Your task to perform on an android device: allow cookies in the chrome app Image 0: 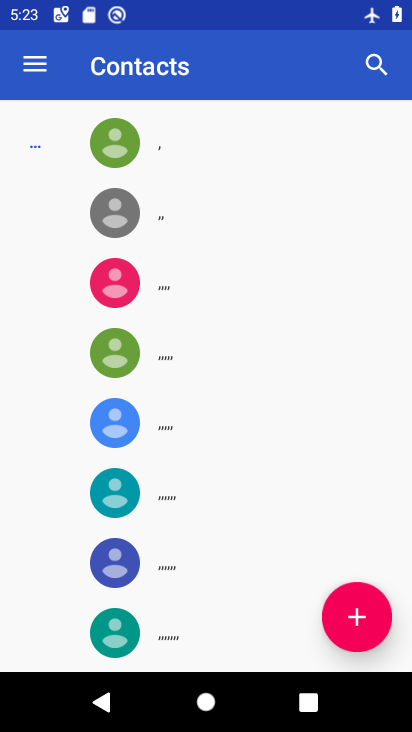
Step 0: press home button
Your task to perform on an android device: allow cookies in the chrome app Image 1: 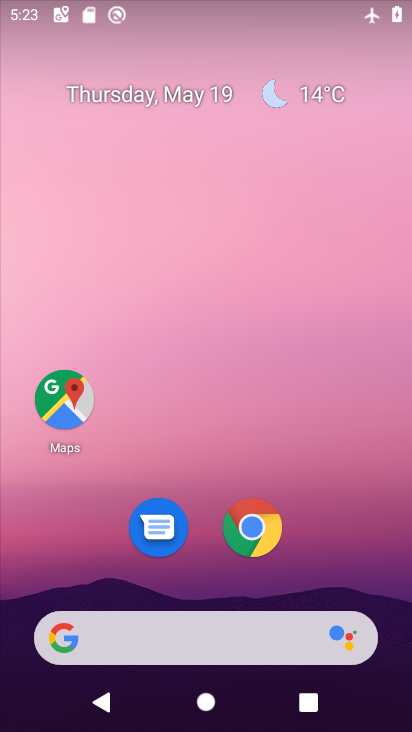
Step 1: click (247, 521)
Your task to perform on an android device: allow cookies in the chrome app Image 2: 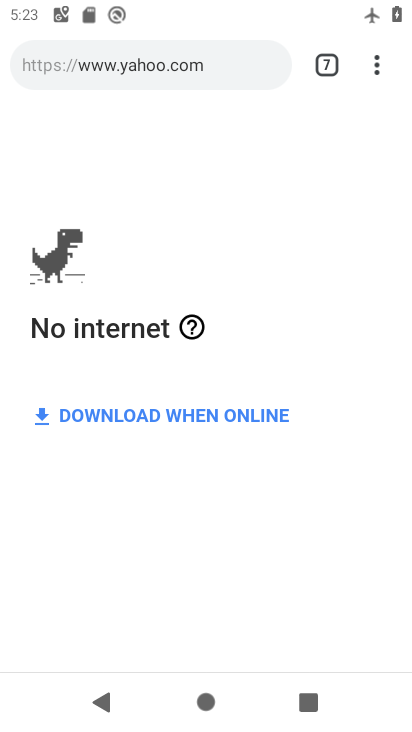
Step 2: click (379, 70)
Your task to perform on an android device: allow cookies in the chrome app Image 3: 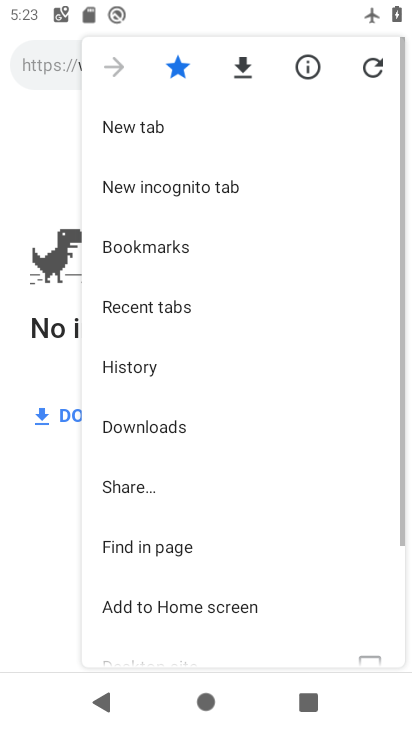
Step 3: drag from (250, 244) to (250, 90)
Your task to perform on an android device: allow cookies in the chrome app Image 4: 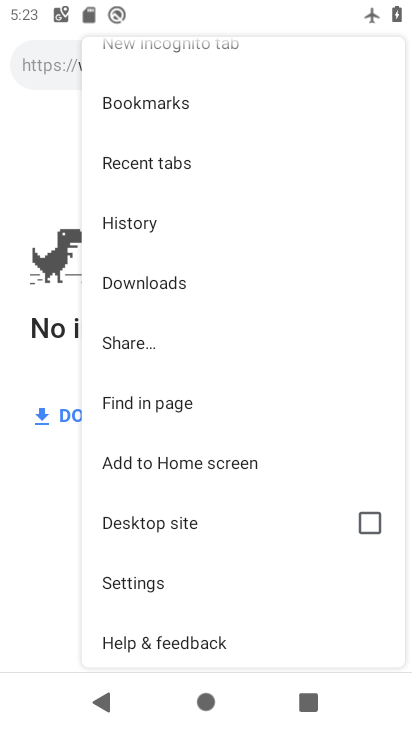
Step 4: drag from (255, 520) to (260, 353)
Your task to perform on an android device: allow cookies in the chrome app Image 5: 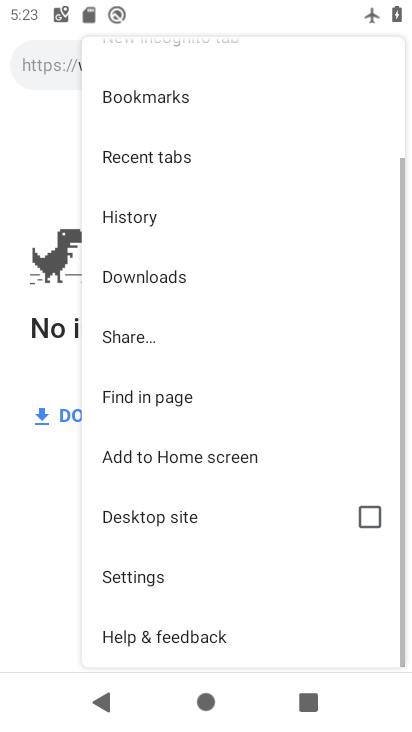
Step 5: click (166, 580)
Your task to perform on an android device: allow cookies in the chrome app Image 6: 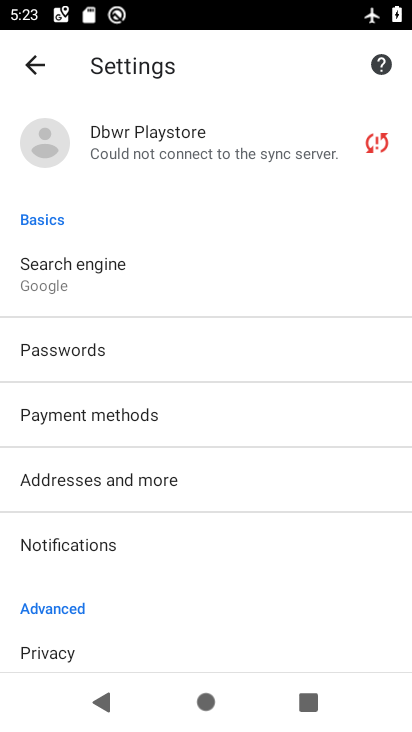
Step 6: drag from (187, 499) to (200, 115)
Your task to perform on an android device: allow cookies in the chrome app Image 7: 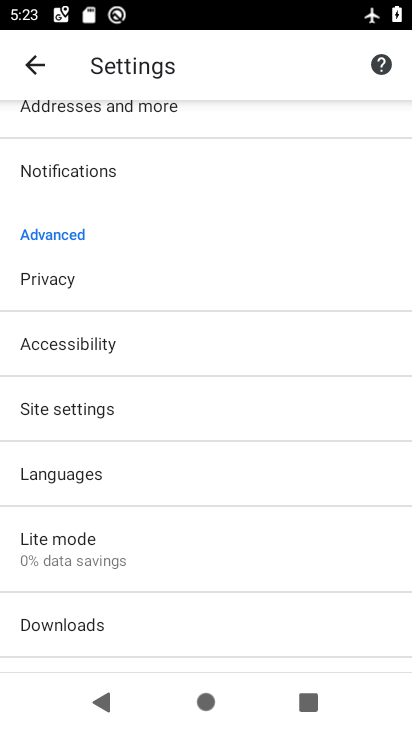
Step 7: click (132, 407)
Your task to perform on an android device: allow cookies in the chrome app Image 8: 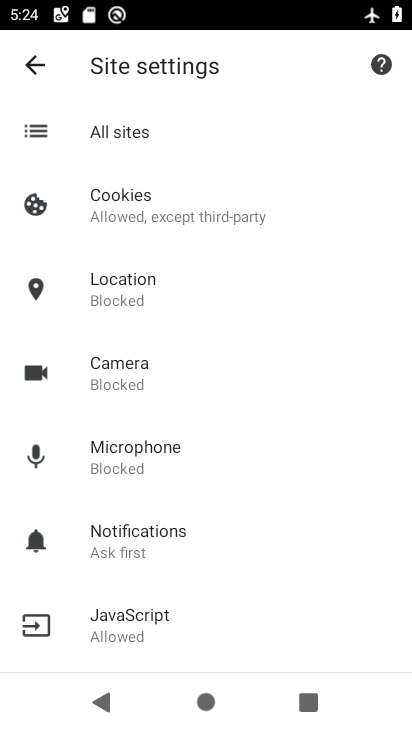
Step 8: click (160, 222)
Your task to perform on an android device: allow cookies in the chrome app Image 9: 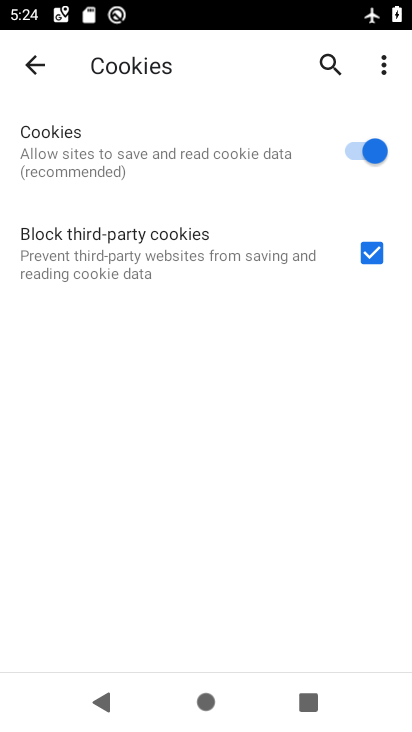
Step 9: task complete